Your task to perform on an android device: Search for "sony triple a" on newegg, select the first entry, and add it to the cart. Image 0: 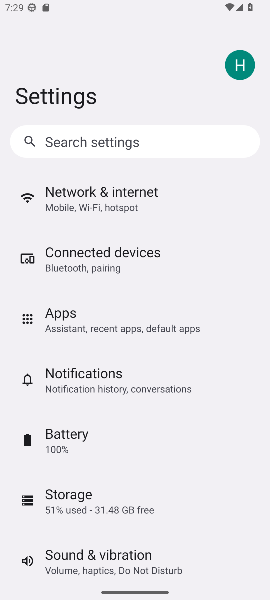
Step 0: press home button
Your task to perform on an android device: Search for "sony triple a" on newegg, select the first entry, and add it to the cart. Image 1: 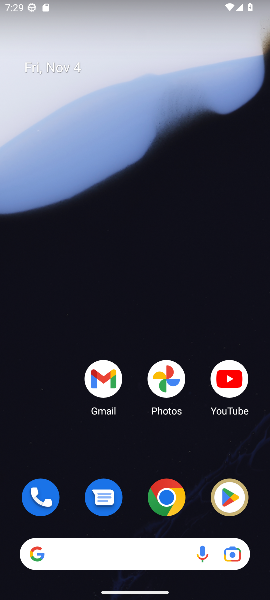
Step 1: click (162, 502)
Your task to perform on an android device: Search for "sony triple a" on newegg, select the first entry, and add it to the cart. Image 2: 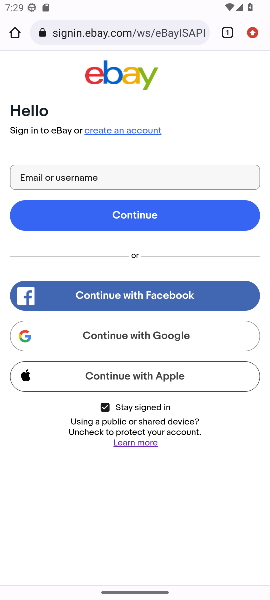
Step 2: click (133, 28)
Your task to perform on an android device: Search for "sony triple a" on newegg, select the first entry, and add it to the cart. Image 3: 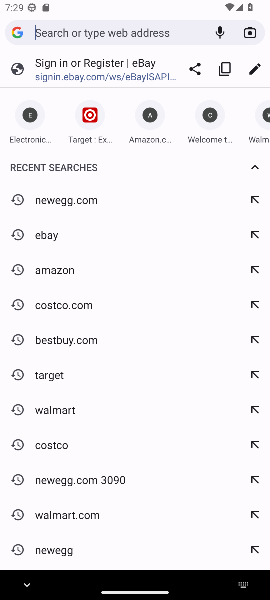
Step 3: click (61, 204)
Your task to perform on an android device: Search for "sony triple a" on newegg, select the first entry, and add it to the cart. Image 4: 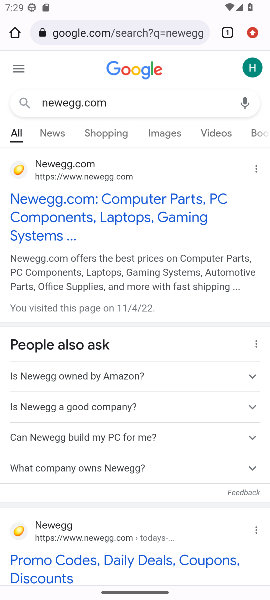
Step 4: click (61, 204)
Your task to perform on an android device: Search for "sony triple a" on newegg, select the first entry, and add it to the cart. Image 5: 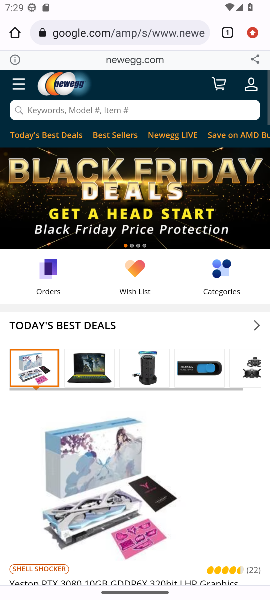
Step 5: click (126, 107)
Your task to perform on an android device: Search for "sony triple a" on newegg, select the first entry, and add it to the cart. Image 6: 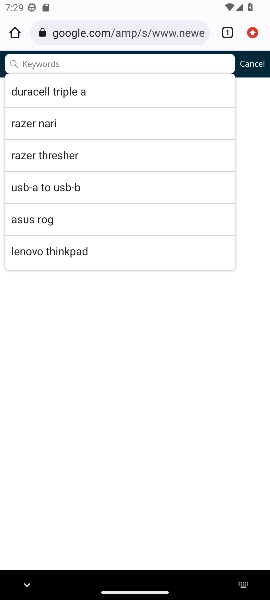
Step 6: type "sony triple a"
Your task to perform on an android device: Search for "sony triple a" on newegg, select the first entry, and add it to the cart. Image 7: 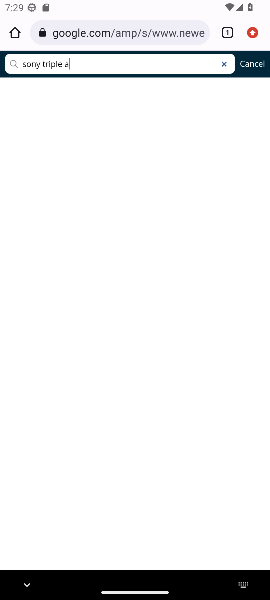
Step 7: click (10, 63)
Your task to perform on an android device: Search for "sony triple a" on newegg, select the first entry, and add it to the cart. Image 8: 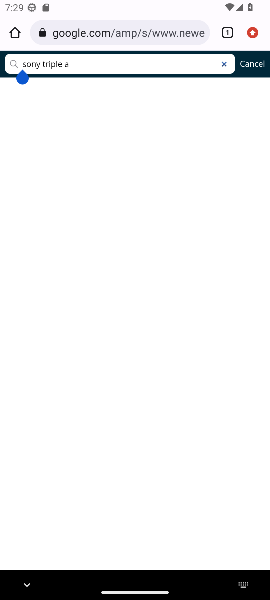
Step 8: task complete